Your task to perform on an android device: set the stopwatch Image 0: 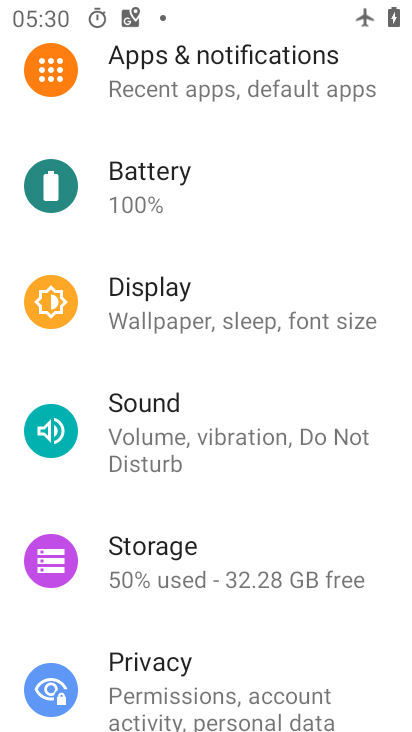
Step 0: press home button
Your task to perform on an android device: set the stopwatch Image 1: 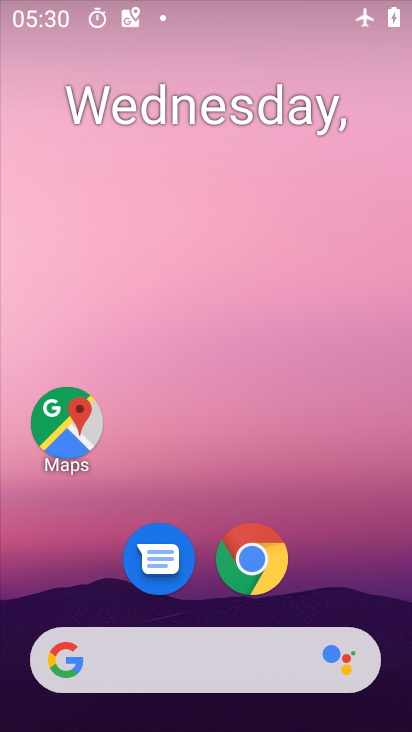
Step 1: drag from (318, 473) to (127, 17)
Your task to perform on an android device: set the stopwatch Image 2: 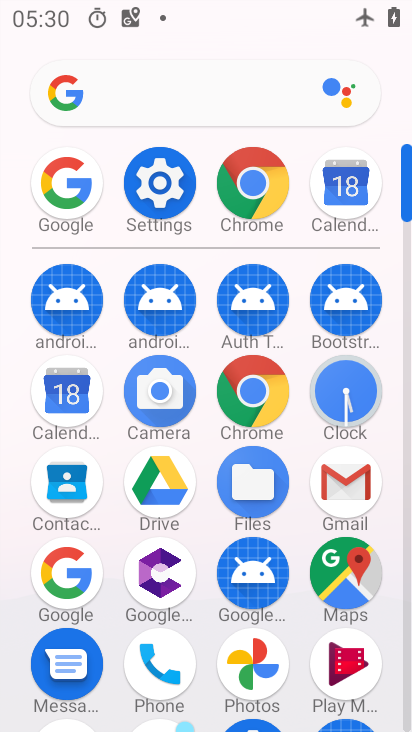
Step 2: click (348, 383)
Your task to perform on an android device: set the stopwatch Image 3: 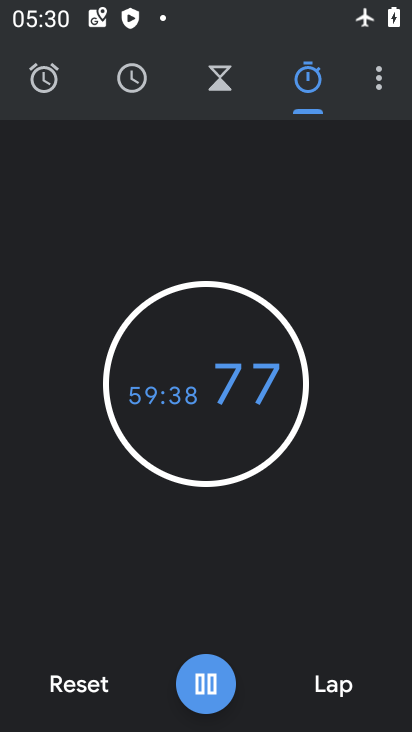
Step 3: click (85, 690)
Your task to perform on an android device: set the stopwatch Image 4: 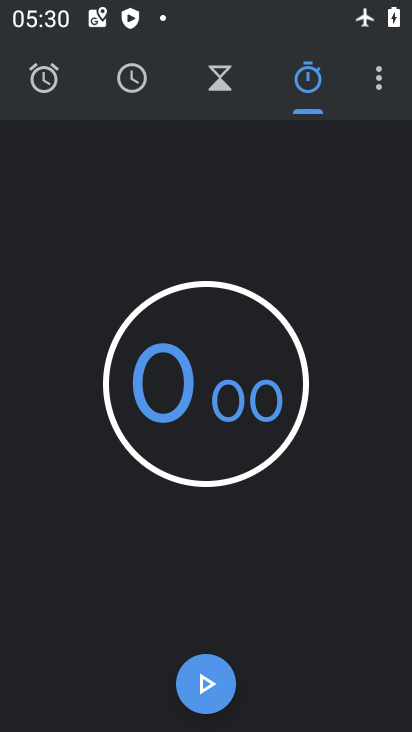
Step 4: click (201, 684)
Your task to perform on an android device: set the stopwatch Image 5: 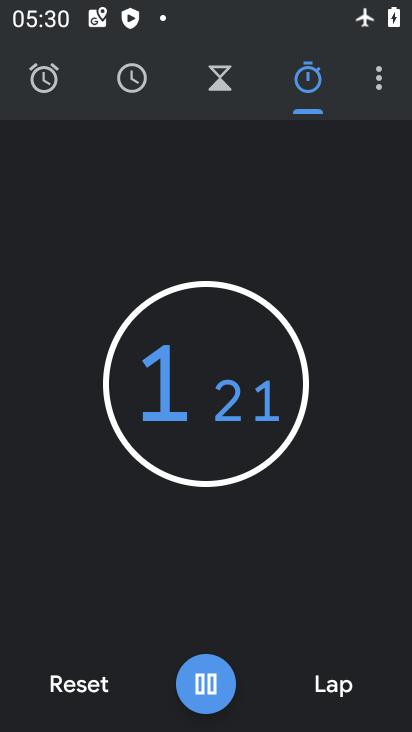
Step 5: task complete